Your task to perform on an android device: open sync settings in chrome Image 0: 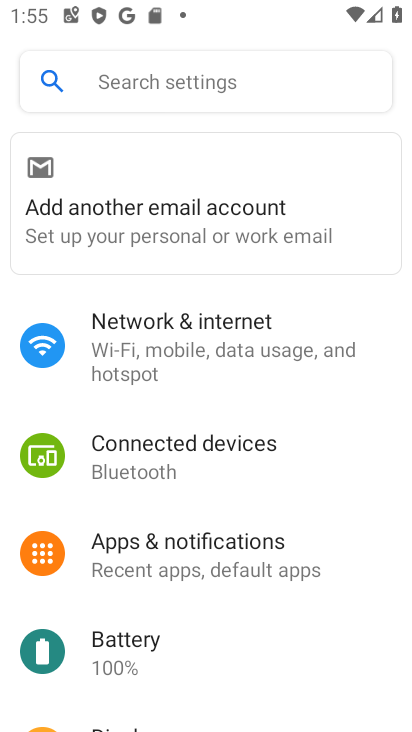
Step 0: drag from (252, 647) to (298, 327)
Your task to perform on an android device: open sync settings in chrome Image 1: 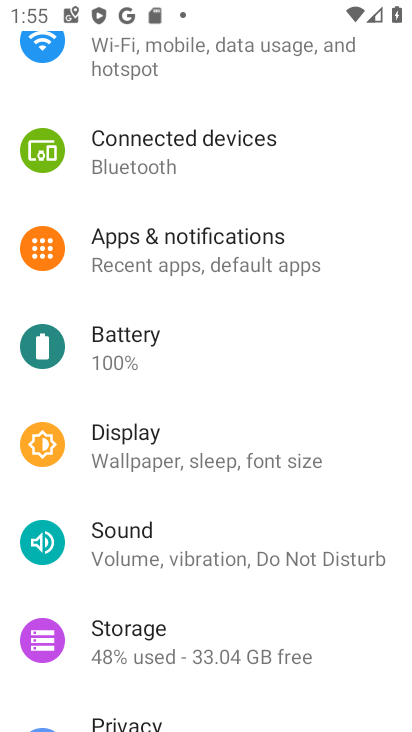
Step 1: press home button
Your task to perform on an android device: open sync settings in chrome Image 2: 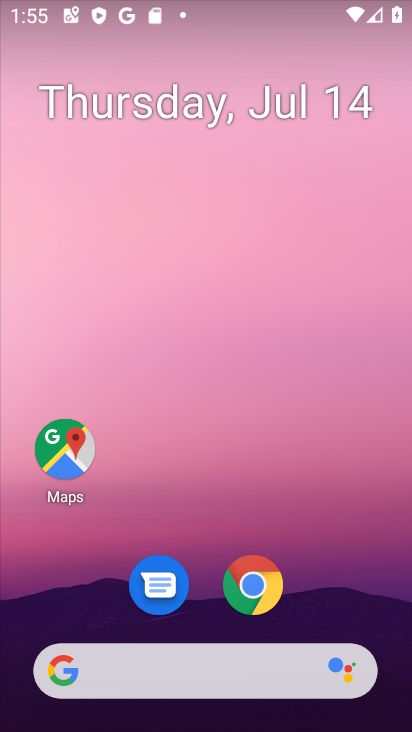
Step 2: click (269, 580)
Your task to perform on an android device: open sync settings in chrome Image 3: 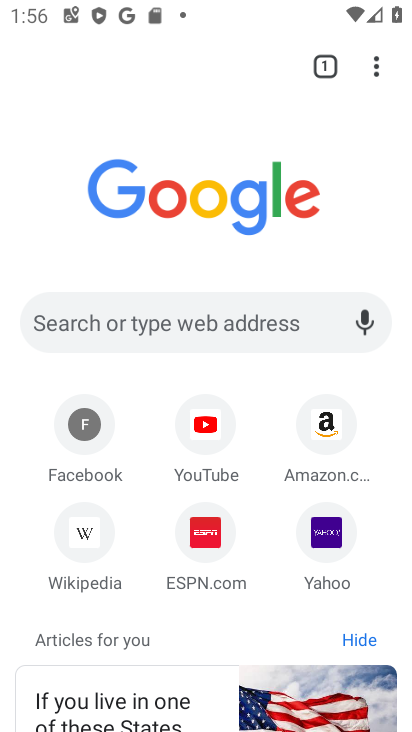
Step 3: click (373, 62)
Your task to perform on an android device: open sync settings in chrome Image 4: 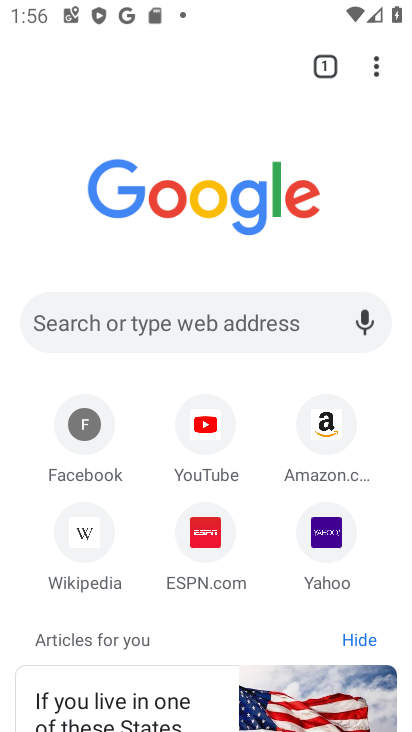
Step 4: click (373, 62)
Your task to perform on an android device: open sync settings in chrome Image 5: 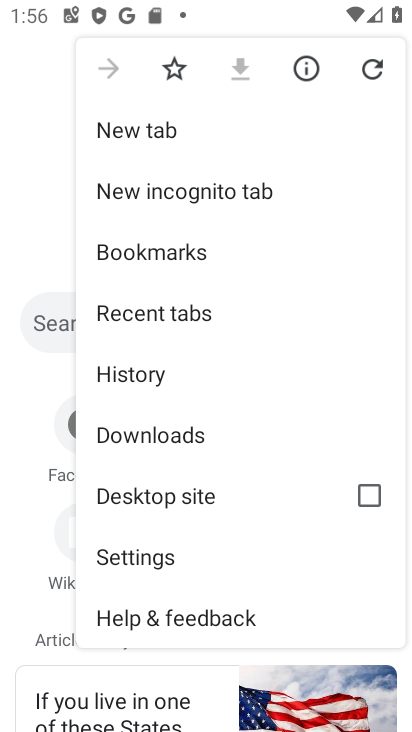
Step 5: click (157, 559)
Your task to perform on an android device: open sync settings in chrome Image 6: 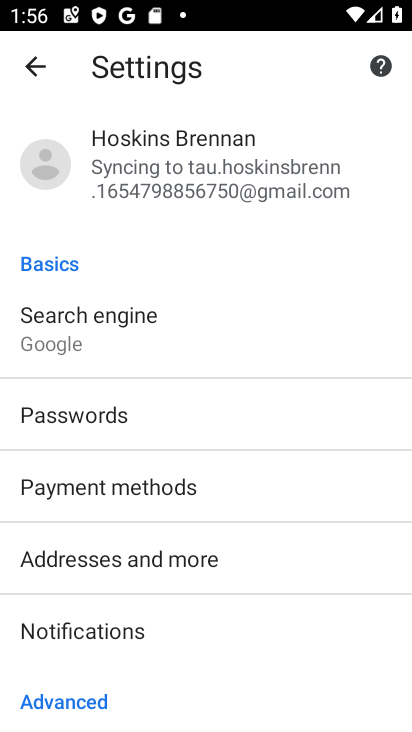
Step 6: click (176, 188)
Your task to perform on an android device: open sync settings in chrome Image 7: 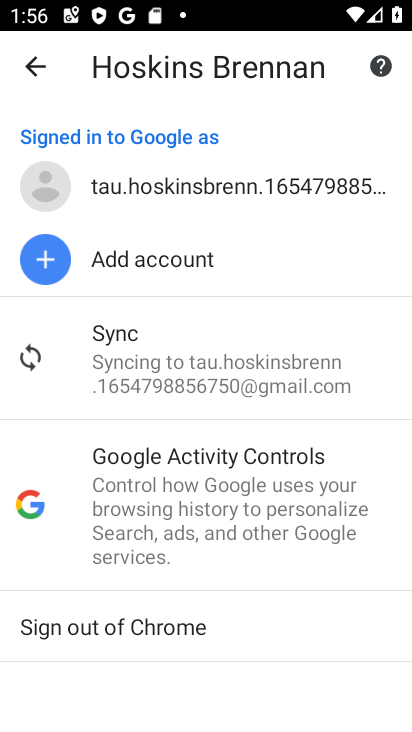
Step 7: click (208, 359)
Your task to perform on an android device: open sync settings in chrome Image 8: 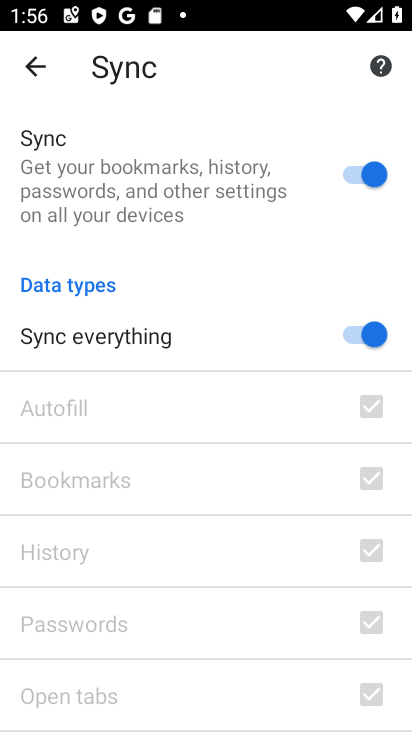
Step 8: task complete